Your task to perform on an android device: Open maps Image 0: 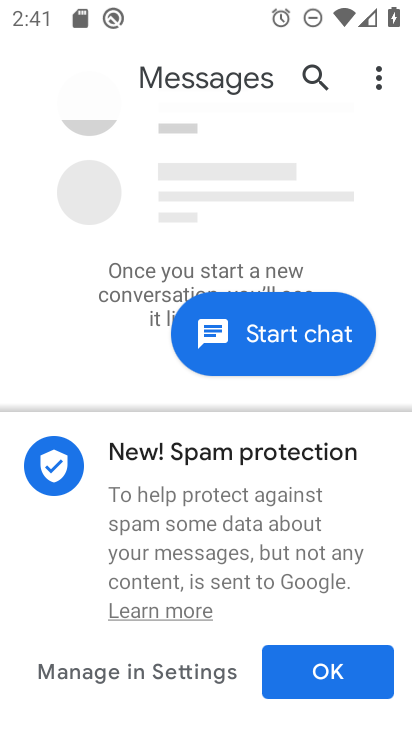
Step 0: press home button
Your task to perform on an android device: Open maps Image 1: 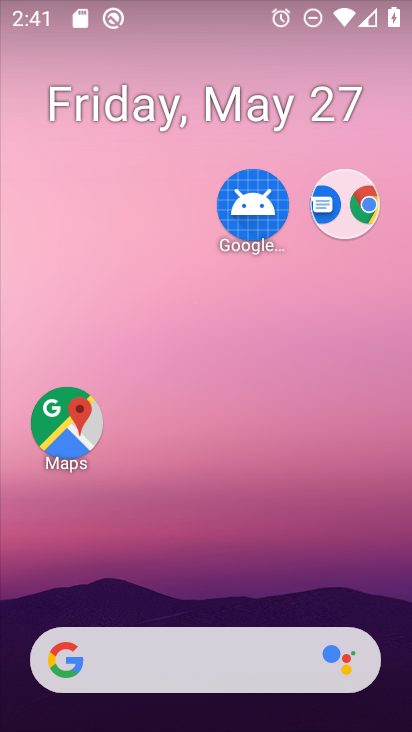
Step 1: drag from (208, 592) to (294, 141)
Your task to perform on an android device: Open maps Image 2: 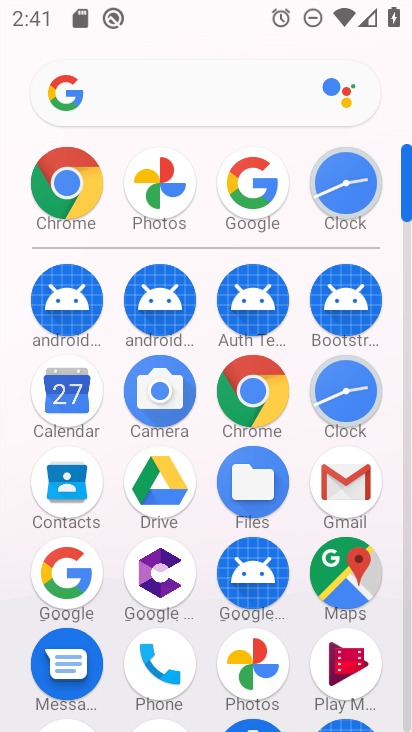
Step 2: drag from (211, 473) to (233, 269)
Your task to perform on an android device: Open maps Image 3: 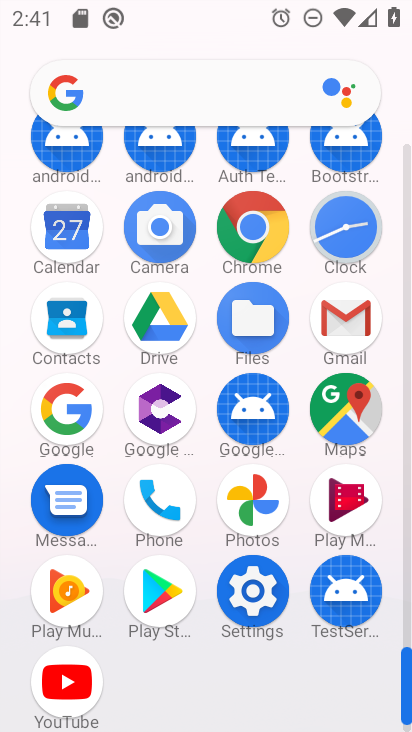
Step 3: click (359, 417)
Your task to perform on an android device: Open maps Image 4: 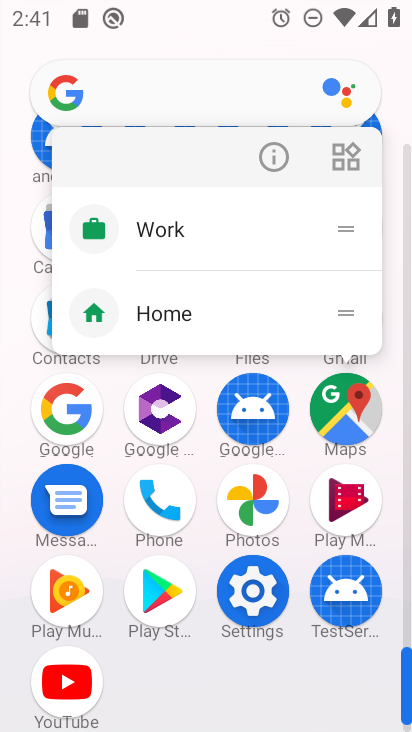
Step 4: click (358, 419)
Your task to perform on an android device: Open maps Image 5: 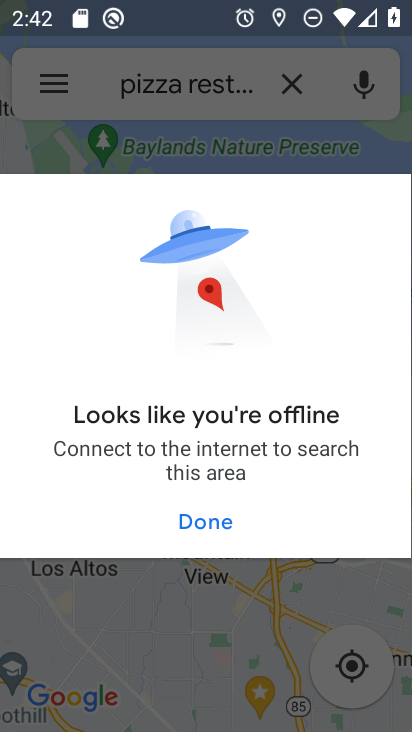
Step 5: click (199, 530)
Your task to perform on an android device: Open maps Image 6: 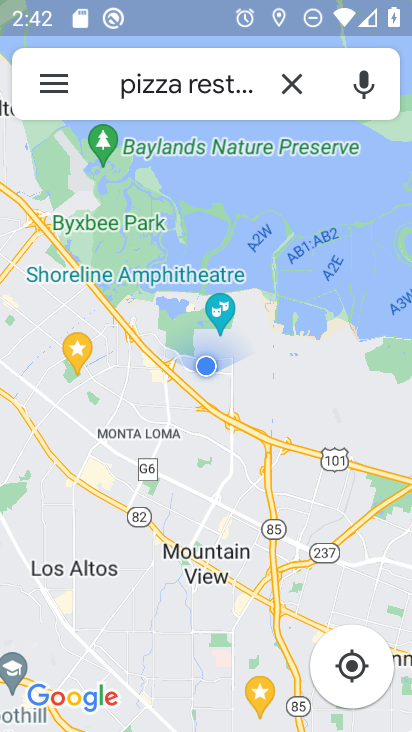
Step 6: task complete